Your task to perform on an android device: turn notification dots on Image 0: 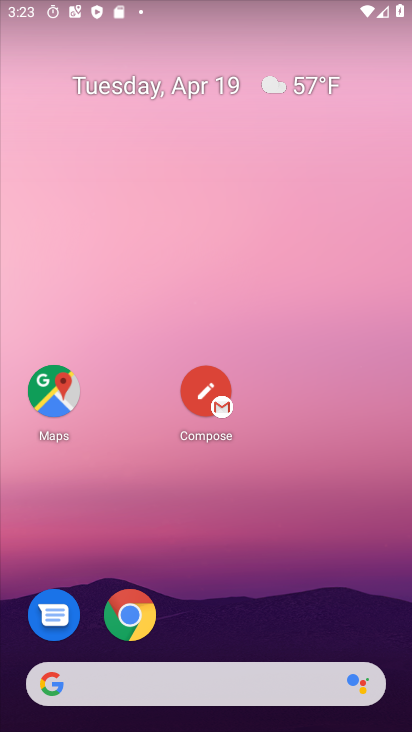
Step 0: drag from (349, 630) to (352, 29)
Your task to perform on an android device: turn notification dots on Image 1: 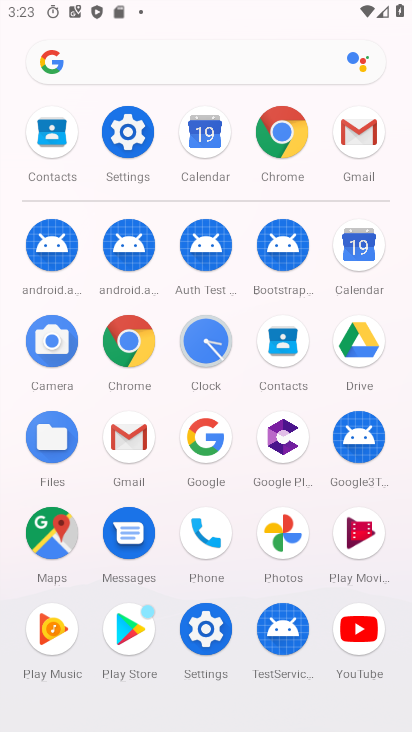
Step 1: click (203, 635)
Your task to perform on an android device: turn notification dots on Image 2: 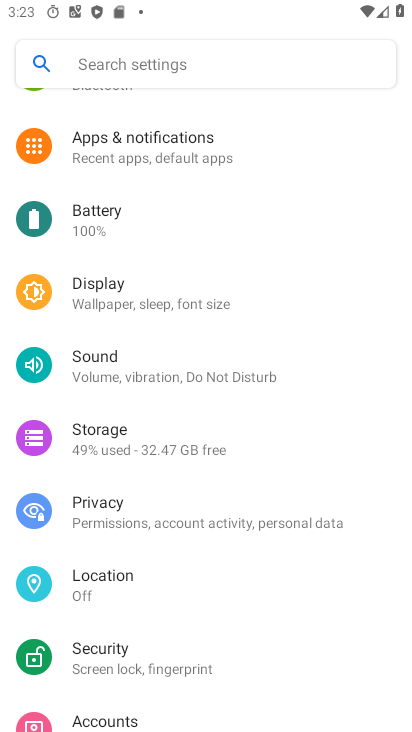
Step 2: click (209, 147)
Your task to perform on an android device: turn notification dots on Image 3: 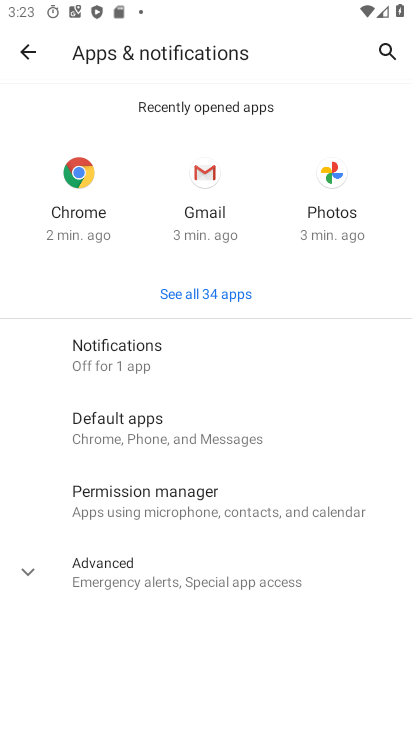
Step 3: click (183, 498)
Your task to perform on an android device: turn notification dots on Image 4: 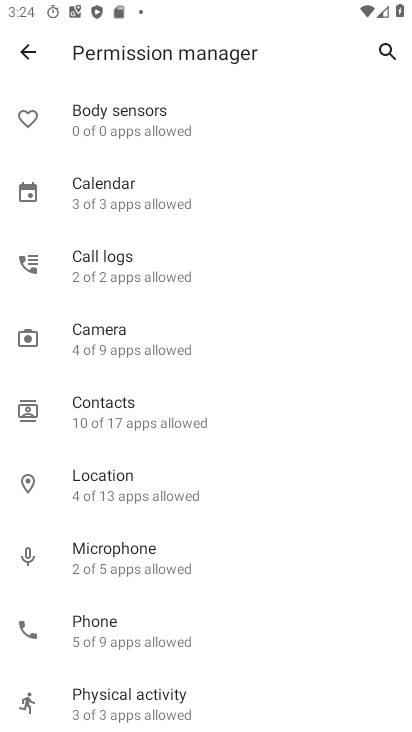
Step 4: press back button
Your task to perform on an android device: turn notification dots on Image 5: 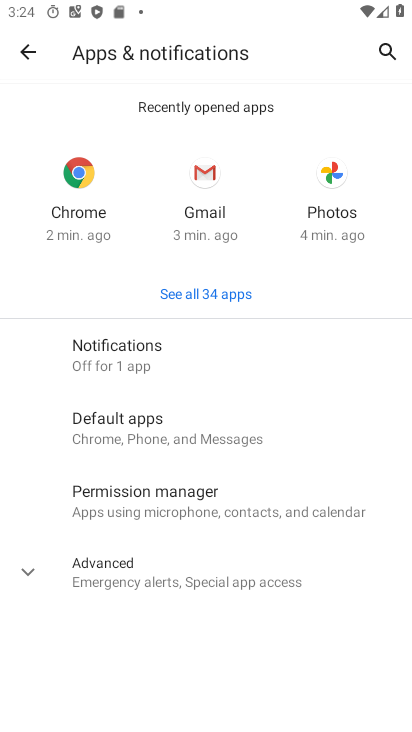
Step 5: click (127, 352)
Your task to perform on an android device: turn notification dots on Image 6: 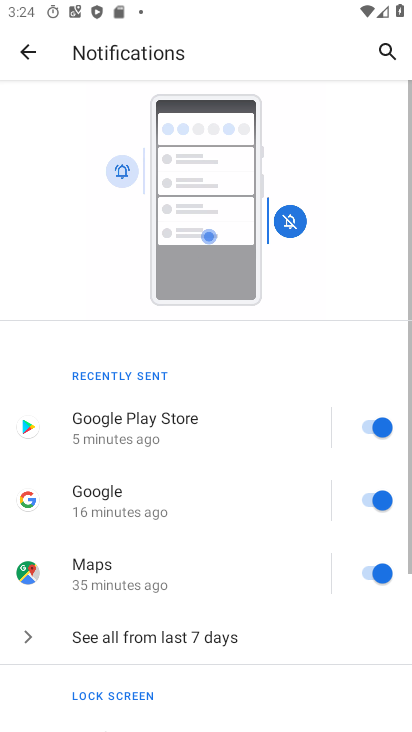
Step 6: drag from (227, 631) to (298, 162)
Your task to perform on an android device: turn notification dots on Image 7: 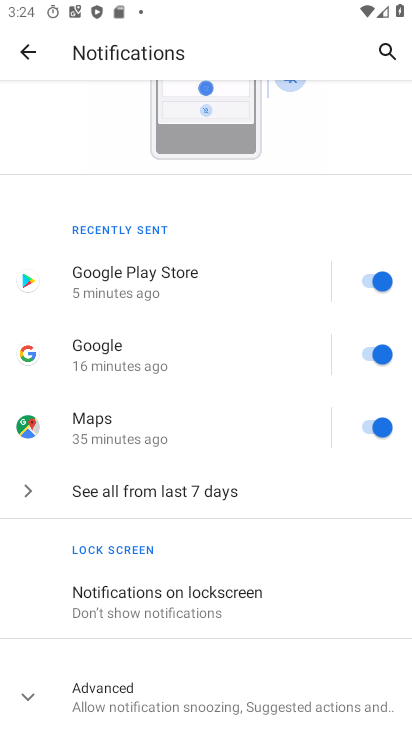
Step 7: click (224, 594)
Your task to perform on an android device: turn notification dots on Image 8: 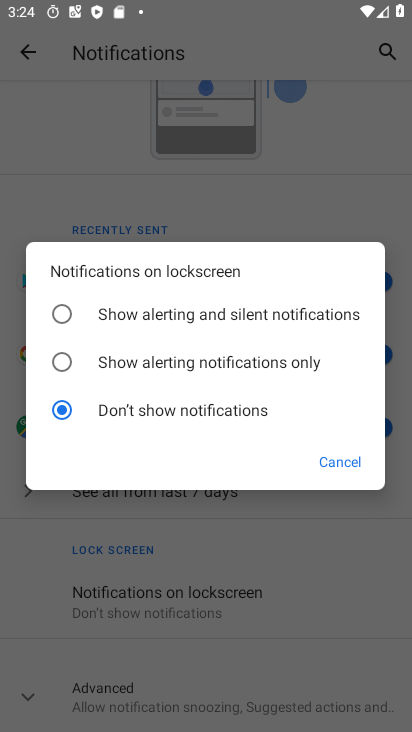
Step 8: click (342, 462)
Your task to perform on an android device: turn notification dots on Image 9: 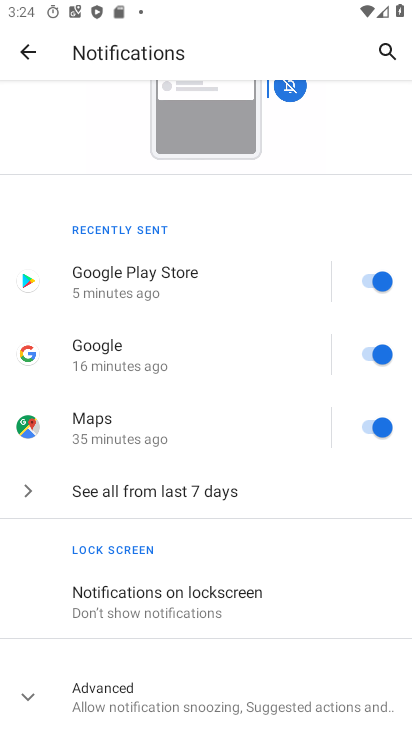
Step 9: drag from (299, 676) to (274, 418)
Your task to perform on an android device: turn notification dots on Image 10: 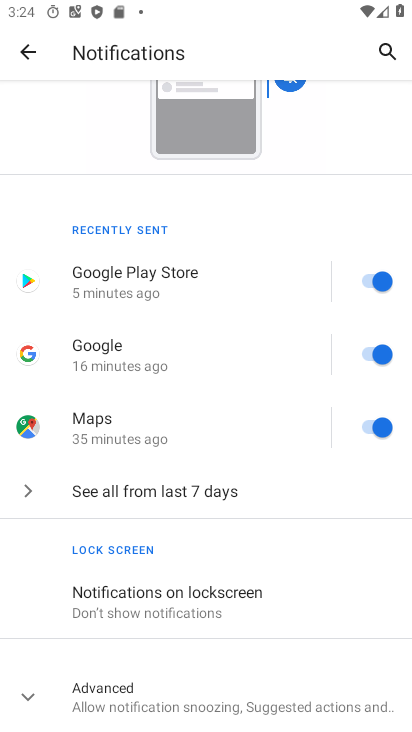
Step 10: click (207, 702)
Your task to perform on an android device: turn notification dots on Image 11: 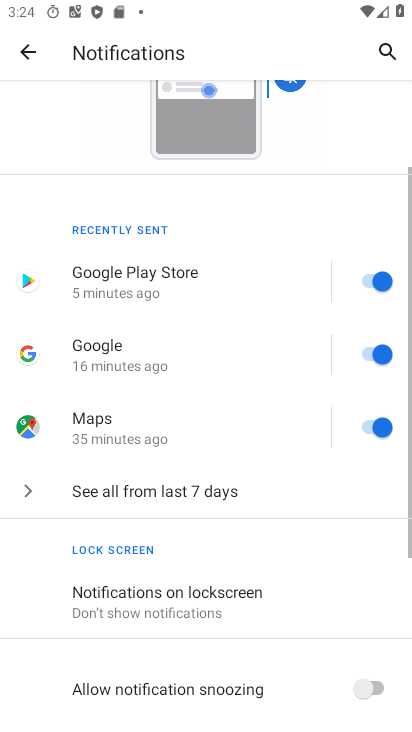
Step 11: task complete